Your task to perform on an android device: Add logitech g910 to the cart on target.com Image 0: 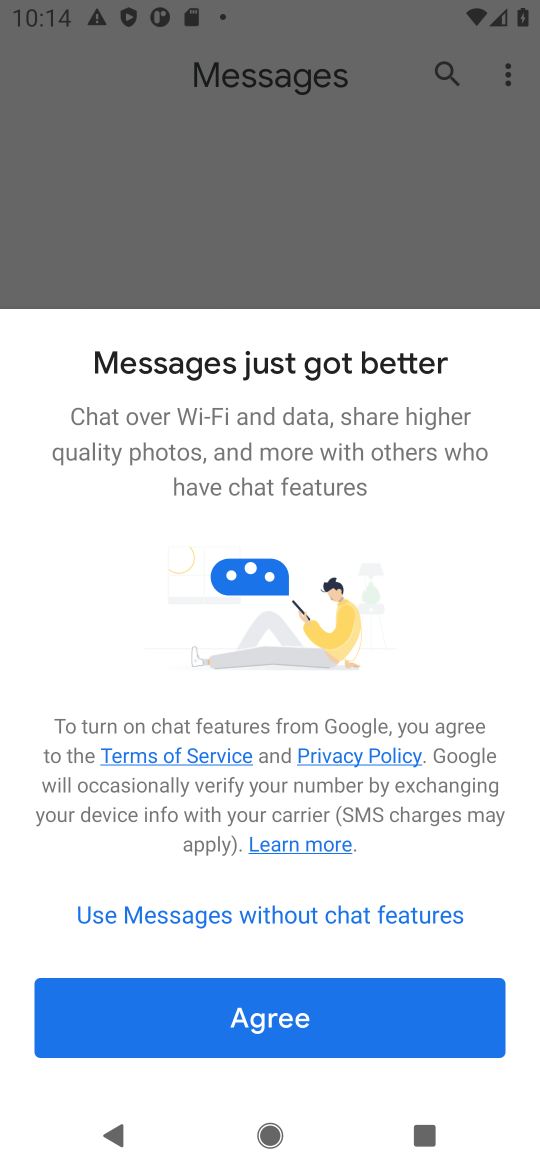
Step 0: drag from (331, 975) to (382, 209)
Your task to perform on an android device: Add logitech g910 to the cart on target.com Image 1: 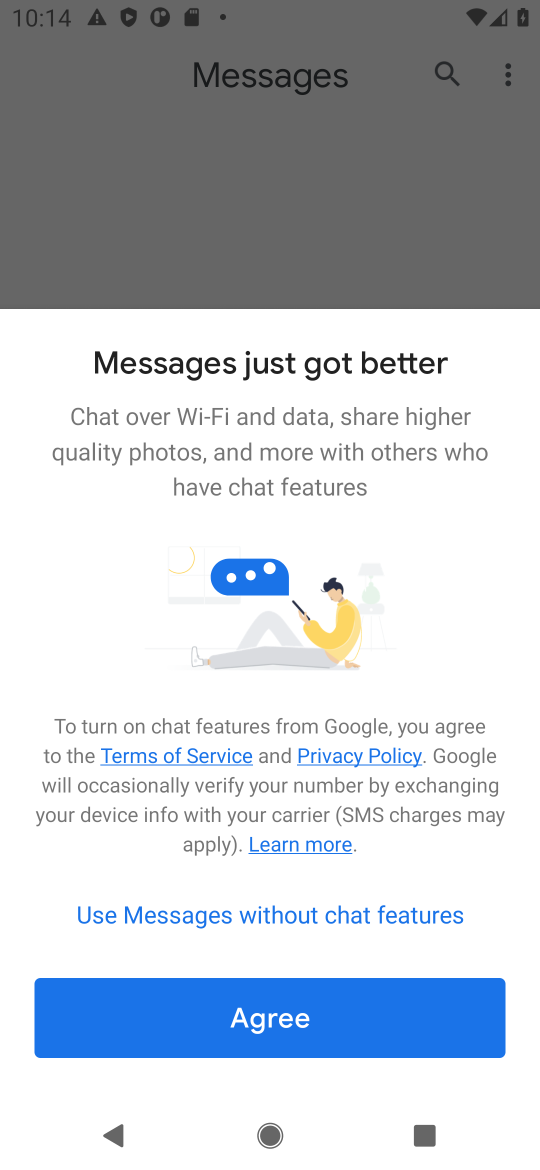
Step 1: press home button
Your task to perform on an android device: Add logitech g910 to the cart on target.com Image 2: 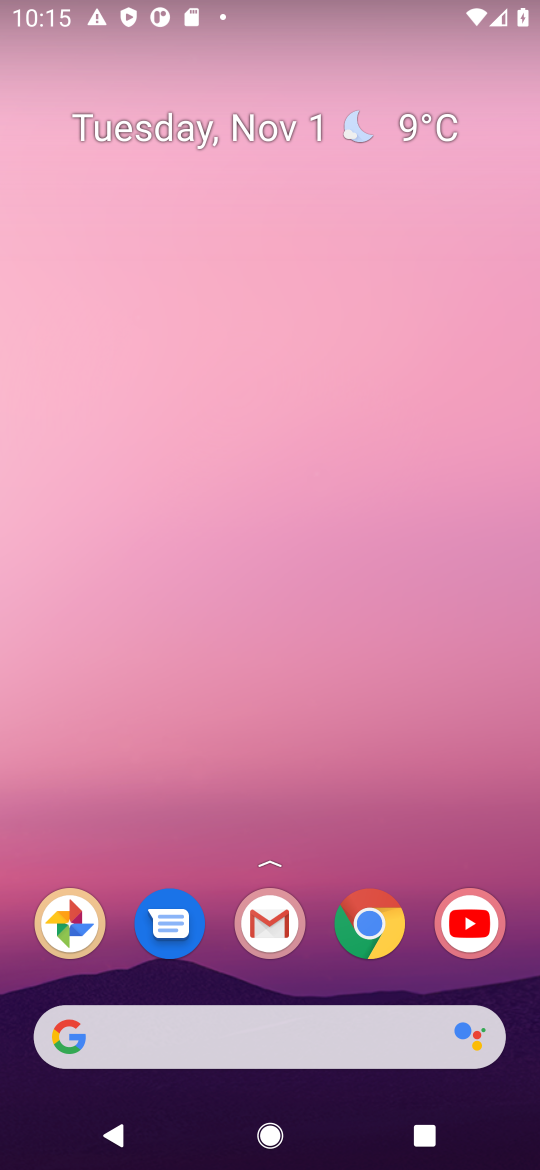
Step 2: drag from (320, 967) to (212, 258)
Your task to perform on an android device: Add logitech g910 to the cart on target.com Image 3: 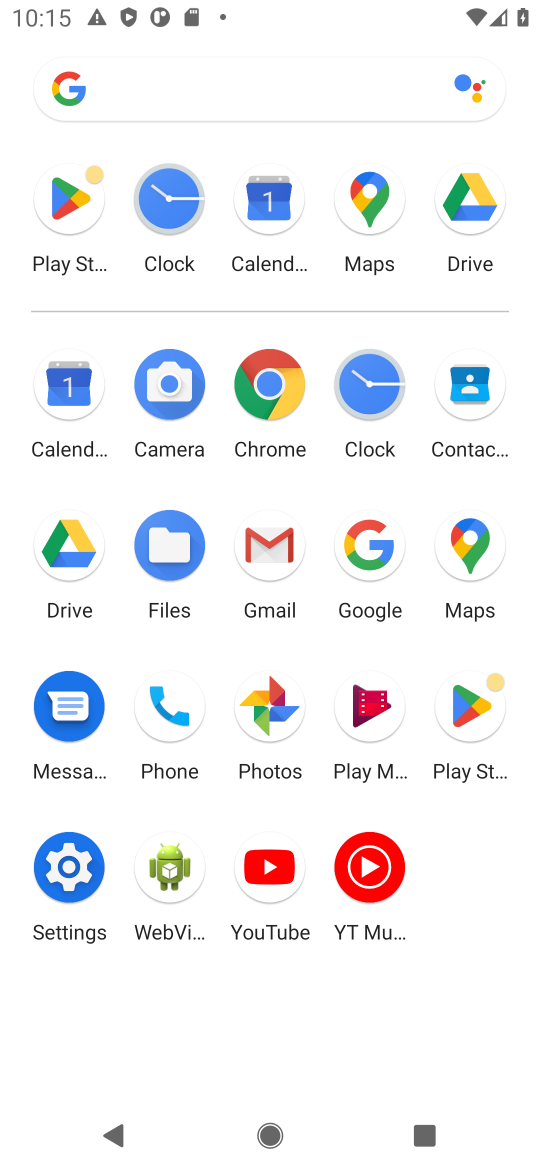
Step 3: click (271, 397)
Your task to perform on an android device: Add logitech g910 to the cart on target.com Image 4: 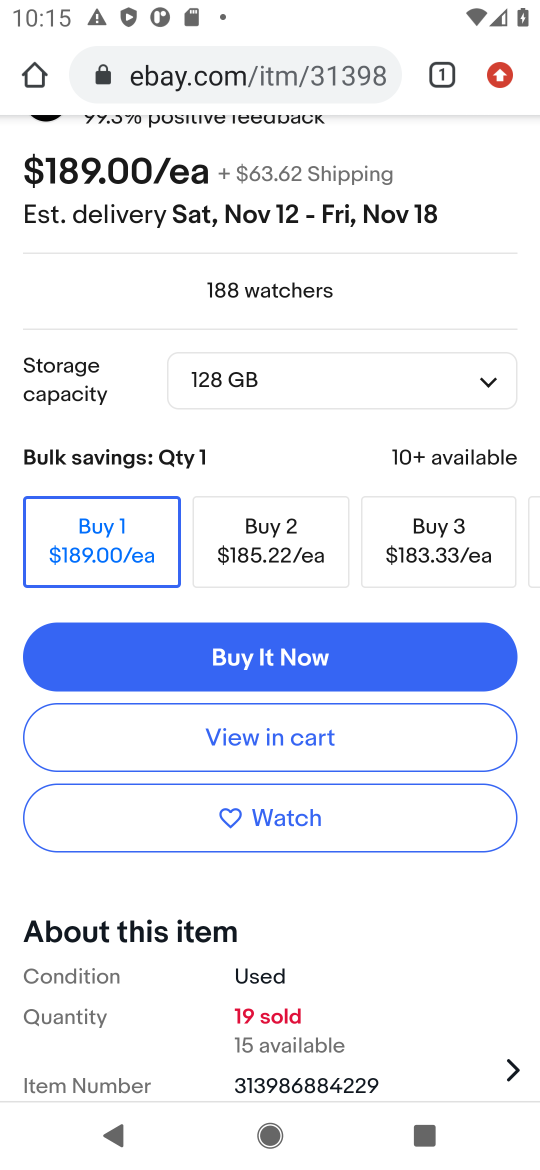
Step 4: click (252, 77)
Your task to perform on an android device: Add logitech g910 to the cart on target.com Image 5: 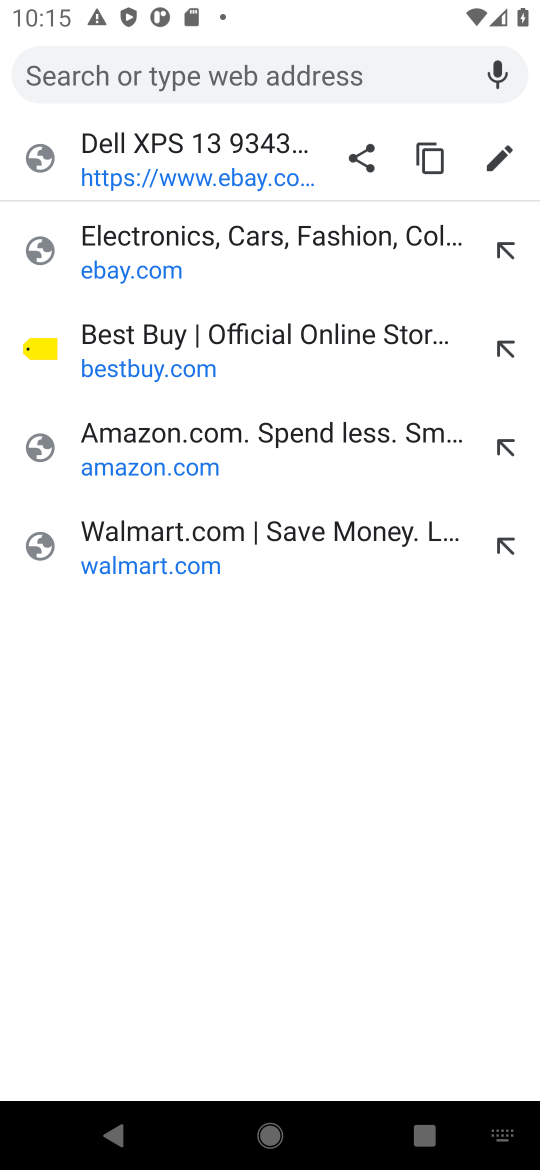
Step 5: type "target.com"
Your task to perform on an android device: Add logitech g910 to the cart on target.com Image 6: 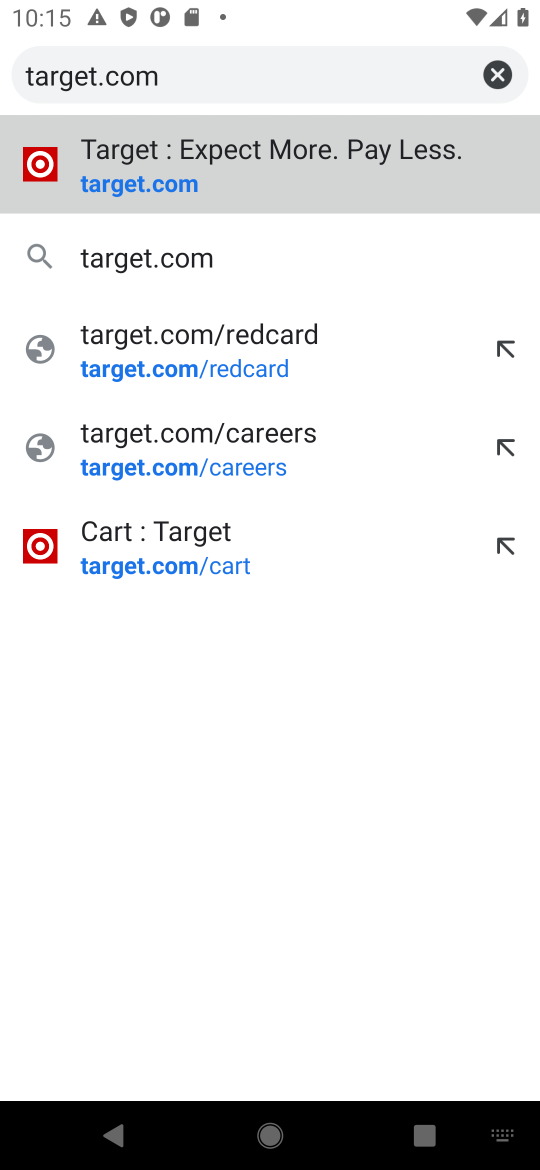
Step 6: press enter
Your task to perform on an android device: Add logitech g910 to the cart on target.com Image 7: 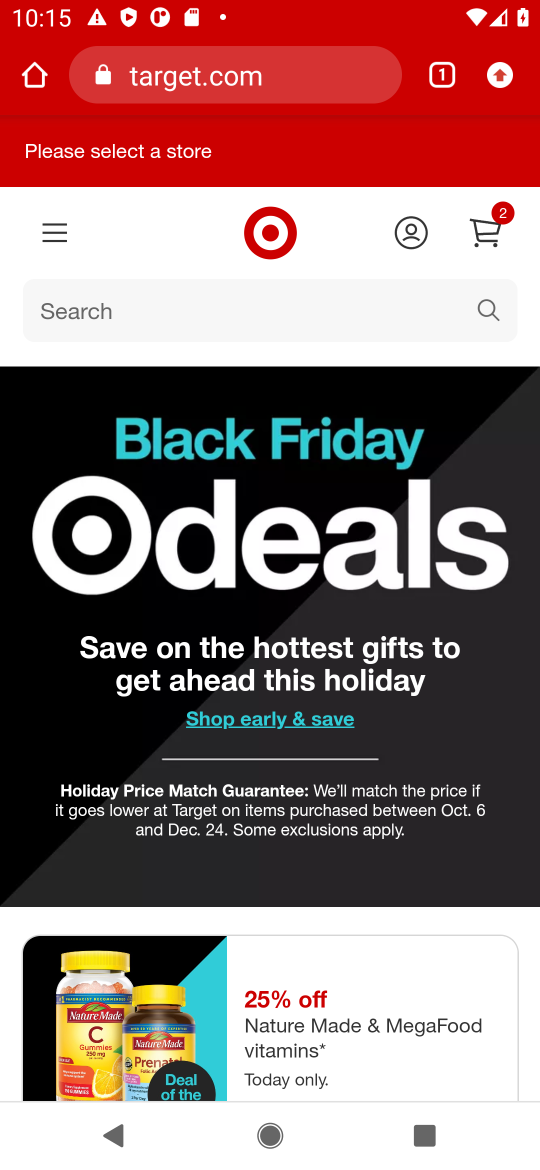
Step 7: click (244, 319)
Your task to perform on an android device: Add logitech g910 to the cart on target.com Image 8: 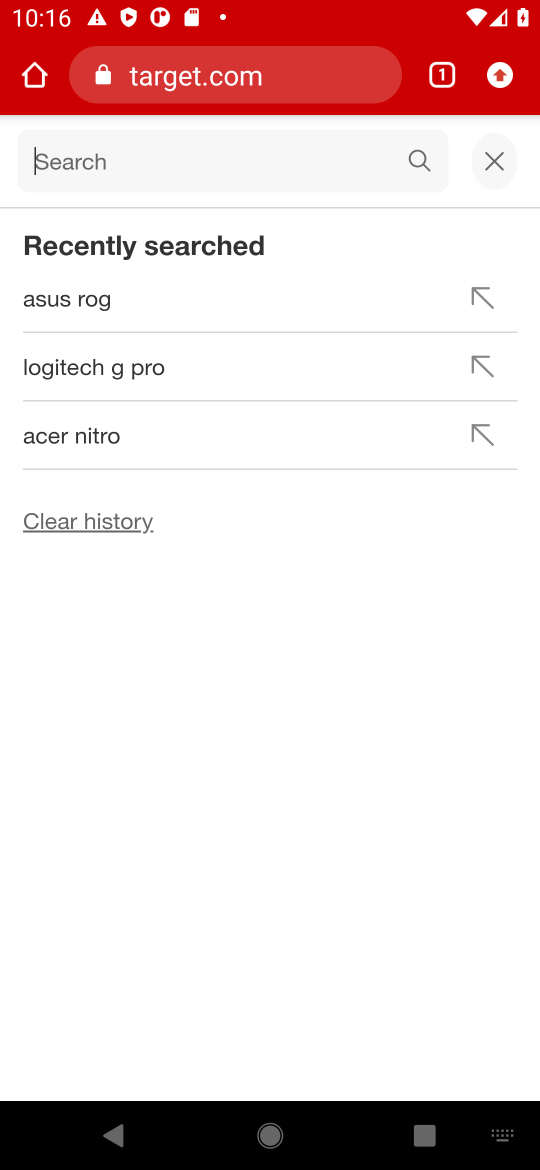
Step 8: type "logitech g910"
Your task to perform on an android device: Add logitech g910 to the cart on target.com Image 9: 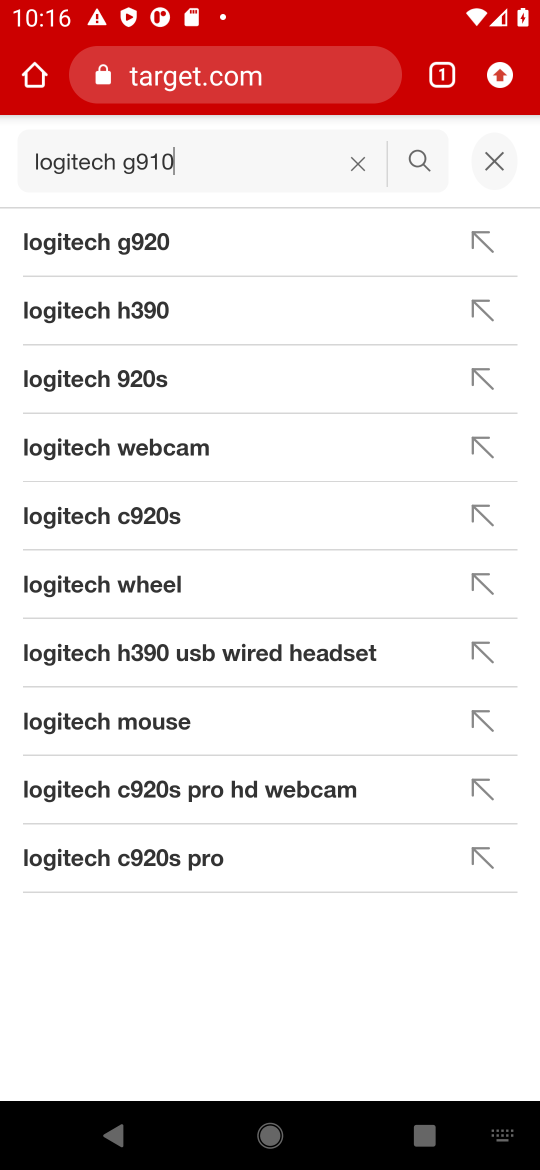
Step 9: press enter
Your task to perform on an android device: Add logitech g910 to the cart on target.com Image 10: 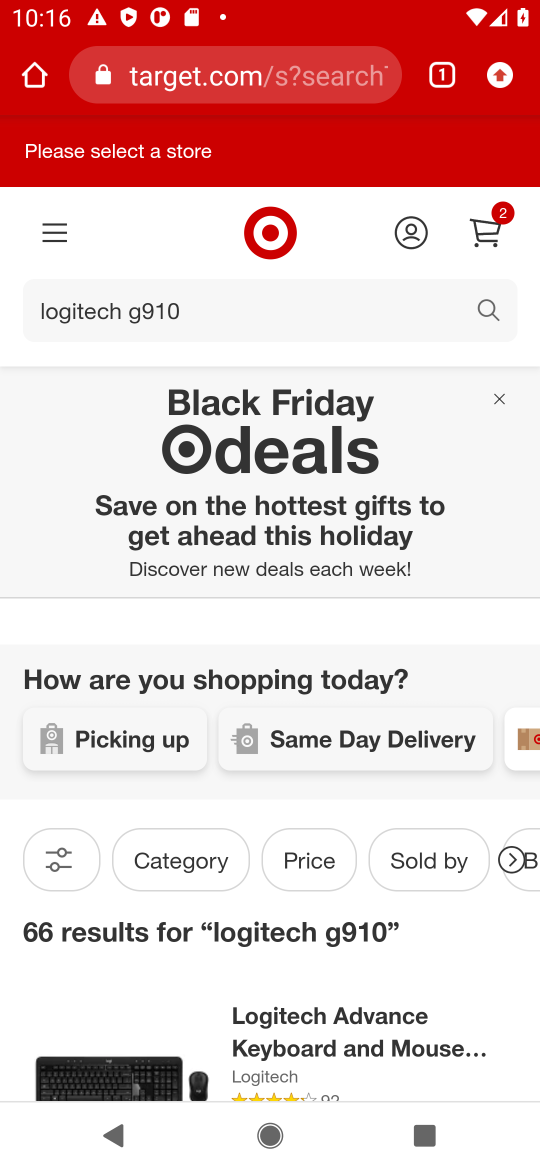
Step 10: task complete